Your task to perform on an android device: turn off data saver in the chrome app Image 0: 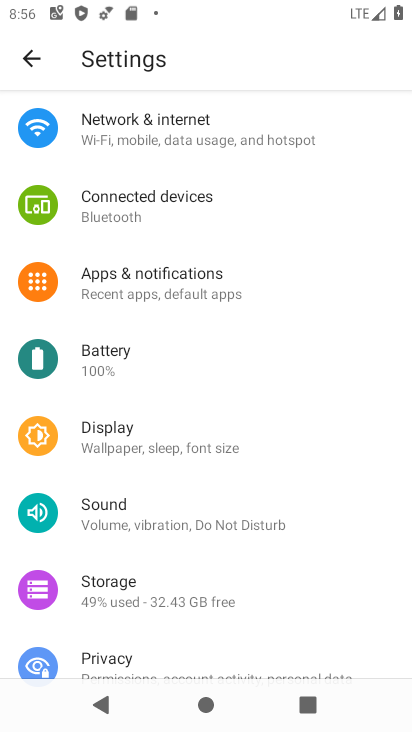
Step 0: press home button
Your task to perform on an android device: turn off data saver in the chrome app Image 1: 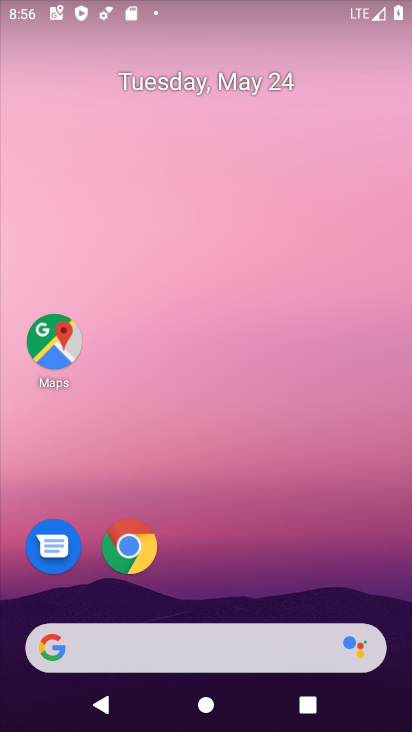
Step 1: click (135, 548)
Your task to perform on an android device: turn off data saver in the chrome app Image 2: 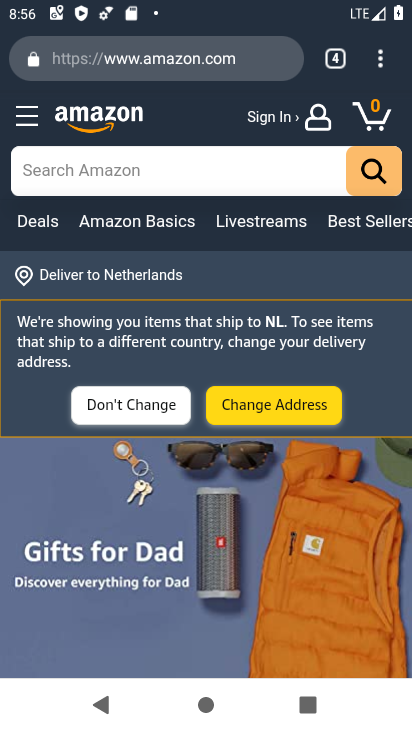
Step 2: click (373, 62)
Your task to perform on an android device: turn off data saver in the chrome app Image 3: 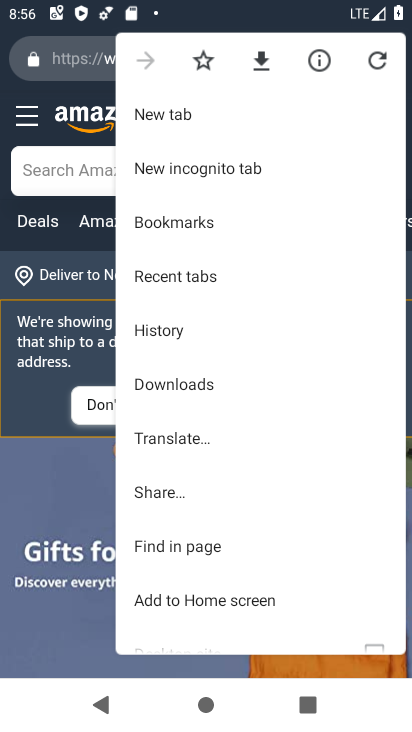
Step 3: drag from (265, 463) to (296, 188)
Your task to perform on an android device: turn off data saver in the chrome app Image 4: 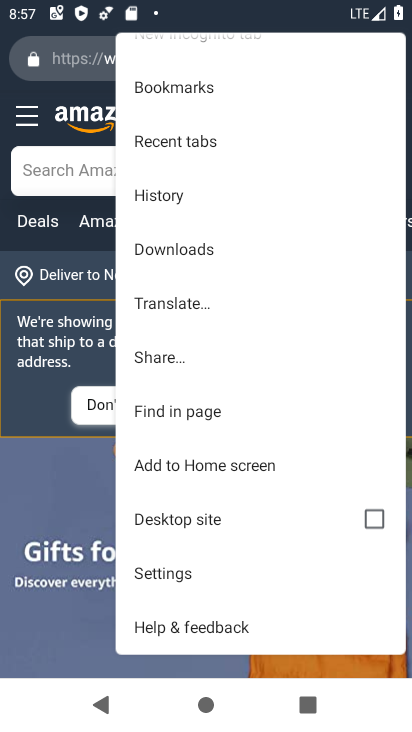
Step 4: click (194, 568)
Your task to perform on an android device: turn off data saver in the chrome app Image 5: 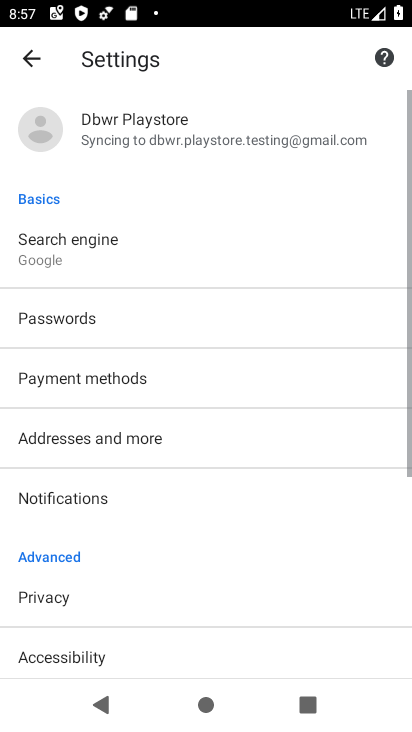
Step 5: drag from (194, 558) to (224, 139)
Your task to perform on an android device: turn off data saver in the chrome app Image 6: 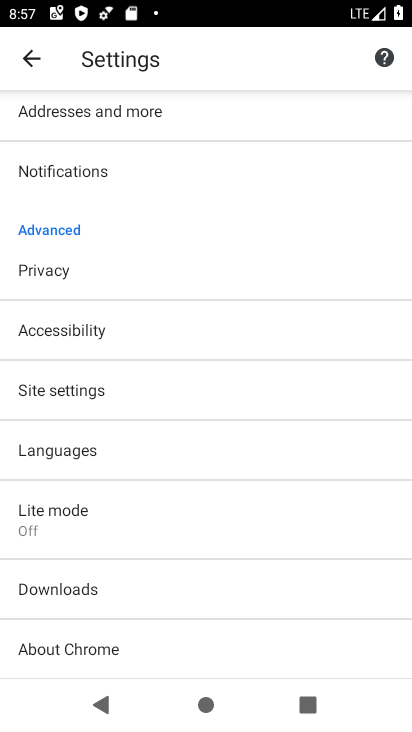
Step 6: click (149, 529)
Your task to perform on an android device: turn off data saver in the chrome app Image 7: 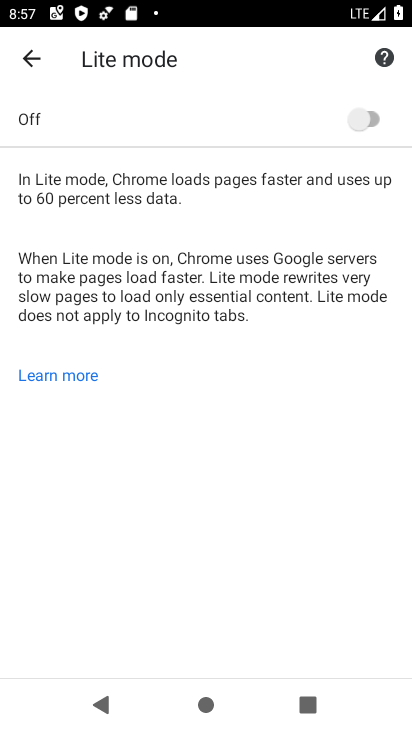
Step 7: task complete